Your task to perform on an android device: toggle priority inbox in the gmail app Image 0: 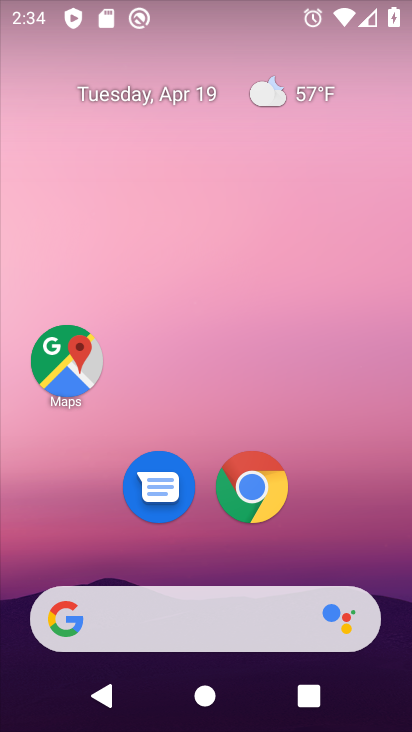
Step 0: drag from (362, 519) to (365, 130)
Your task to perform on an android device: toggle priority inbox in the gmail app Image 1: 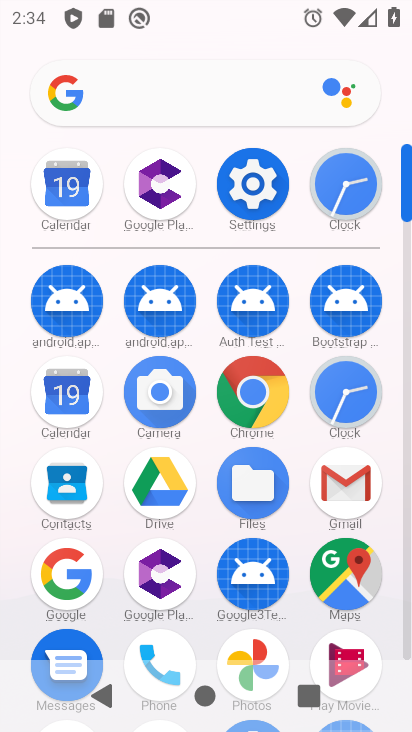
Step 1: click (332, 489)
Your task to perform on an android device: toggle priority inbox in the gmail app Image 2: 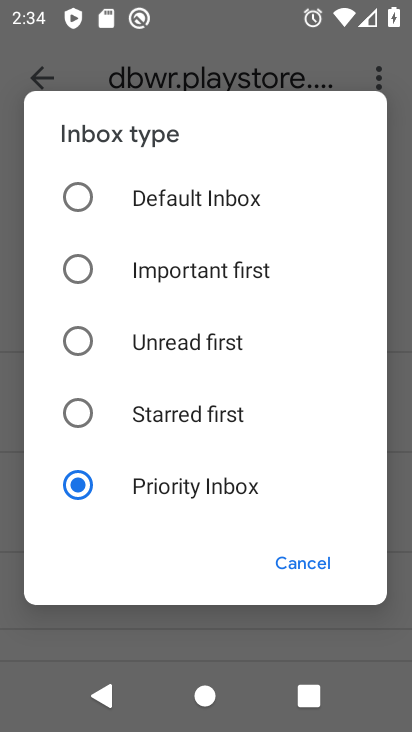
Step 2: click (192, 197)
Your task to perform on an android device: toggle priority inbox in the gmail app Image 3: 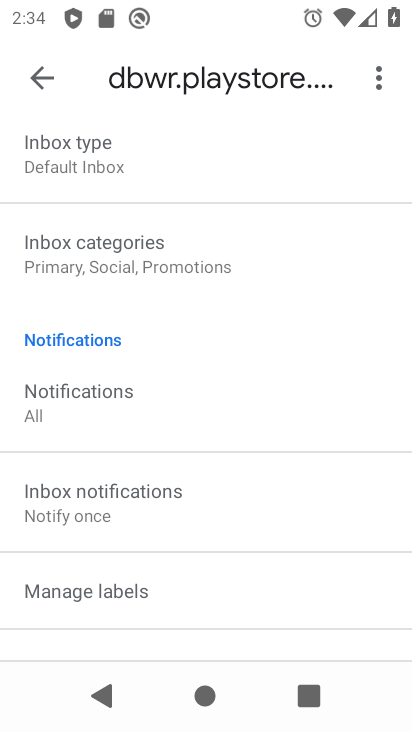
Step 3: task complete